Your task to perform on an android device: turn off picture-in-picture Image 0: 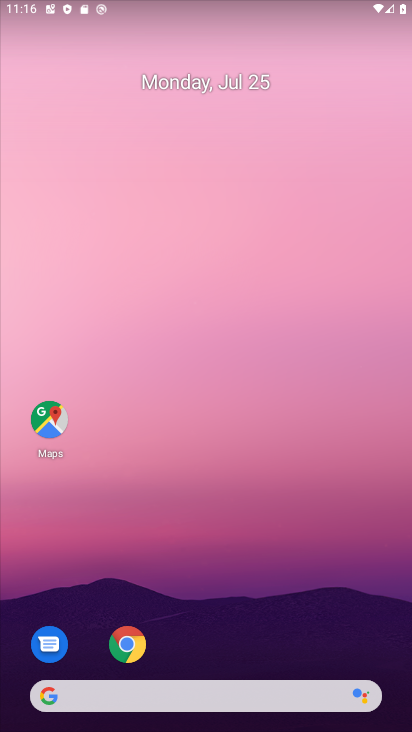
Step 0: drag from (187, 700) to (252, 159)
Your task to perform on an android device: turn off picture-in-picture Image 1: 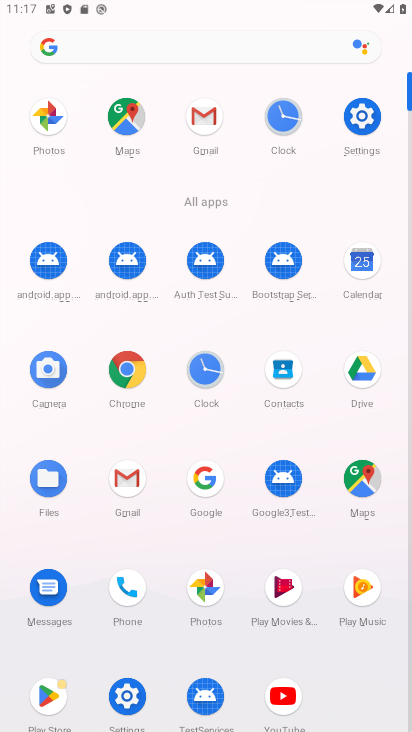
Step 1: click (361, 135)
Your task to perform on an android device: turn off picture-in-picture Image 2: 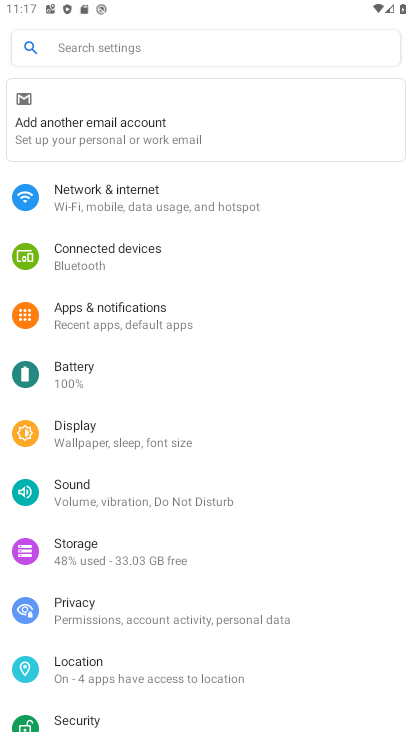
Step 2: click (171, 331)
Your task to perform on an android device: turn off picture-in-picture Image 3: 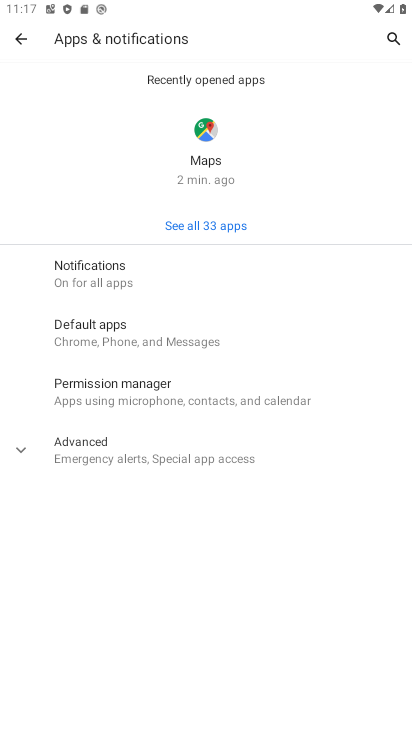
Step 3: click (163, 463)
Your task to perform on an android device: turn off picture-in-picture Image 4: 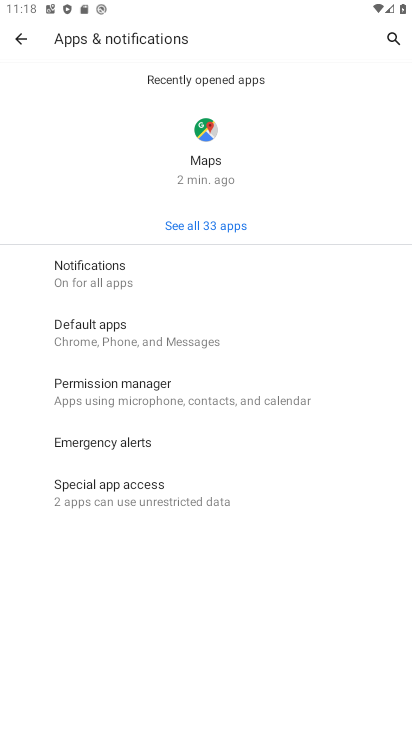
Step 4: click (136, 484)
Your task to perform on an android device: turn off picture-in-picture Image 5: 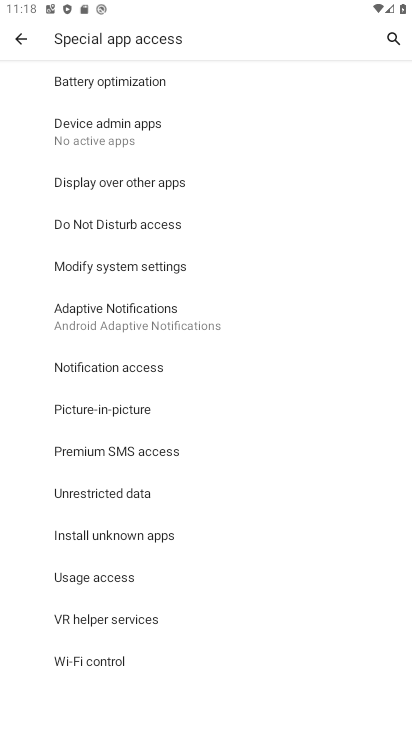
Step 5: click (89, 416)
Your task to perform on an android device: turn off picture-in-picture Image 6: 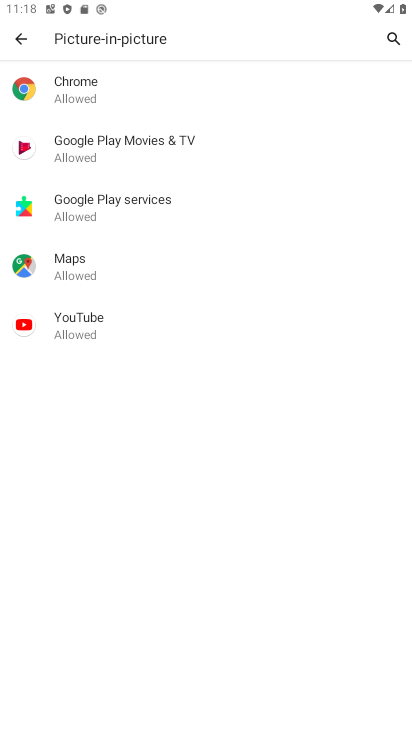
Step 6: click (83, 92)
Your task to perform on an android device: turn off picture-in-picture Image 7: 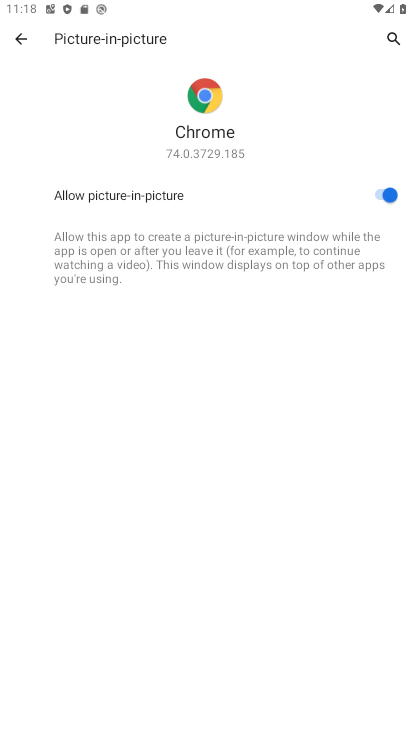
Step 7: click (379, 200)
Your task to perform on an android device: turn off picture-in-picture Image 8: 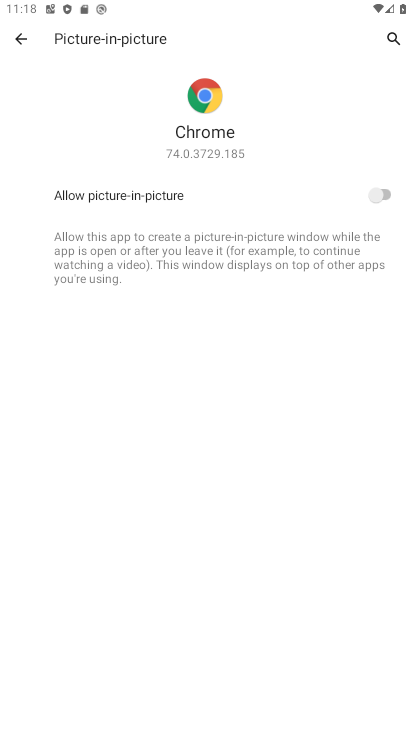
Step 8: task complete